Your task to perform on an android device: turn off location history Image 0: 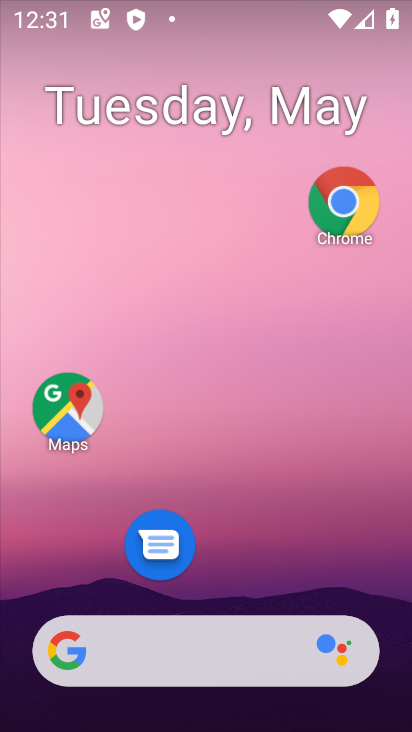
Step 0: drag from (235, 565) to (247, 0)
Your task to perform on an android device: turn off location history Image 1: 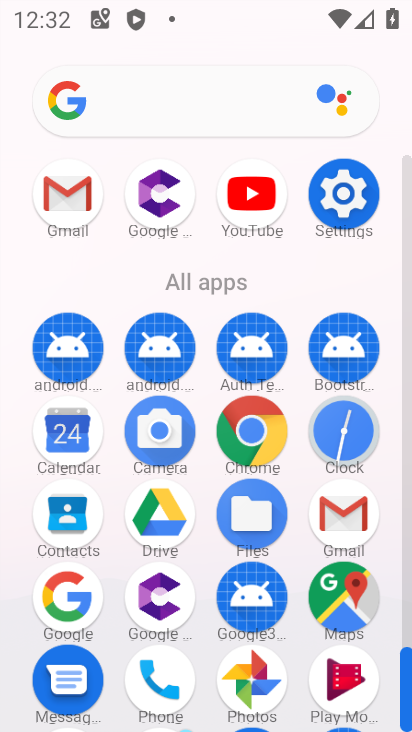
Step 1: click (333, 200)
Your task to perform on an android device: turn off location history Image 2: 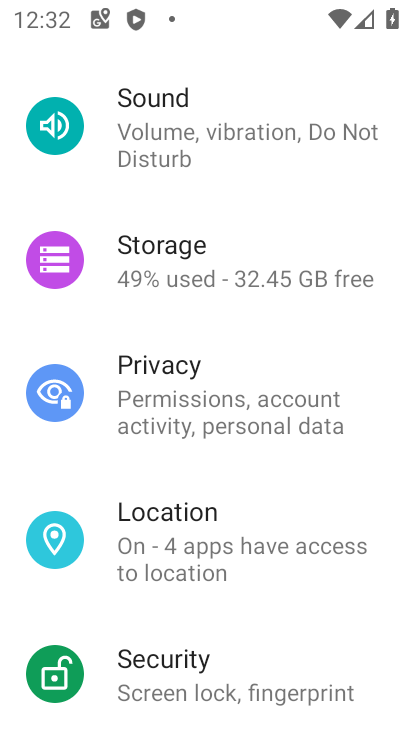
Step 2: click (148, 520)
Your task to perform on an android device: turn off location history Image 3: 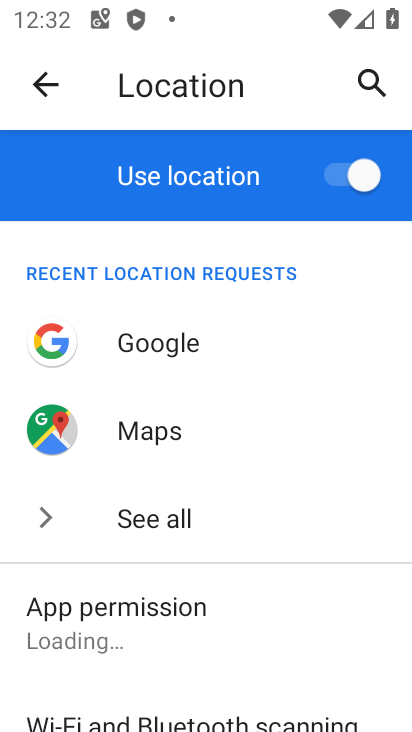
Step 3: drag from (172, 657) to (224, 207)
Your task to perform on an android device: turn off location history Image 4: 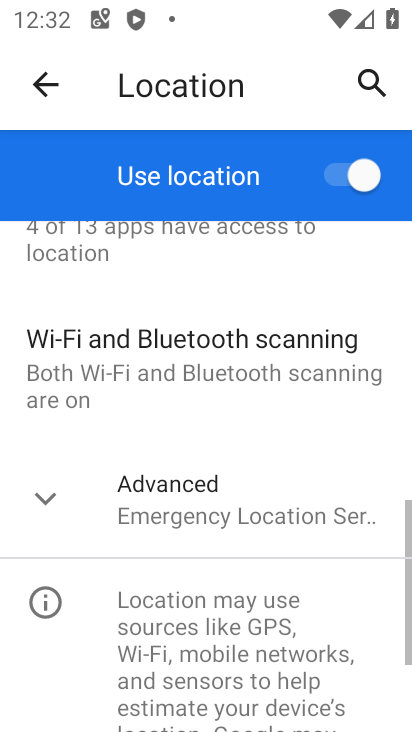
Step 4: click (162, 473)
Your task to perform on an android device: turn off location history Image 5: 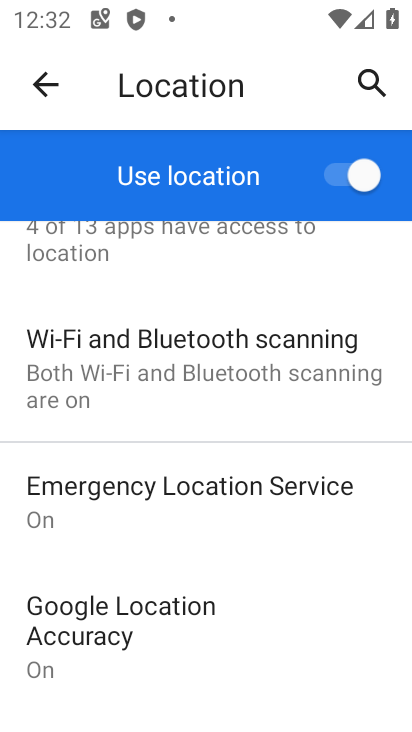
Step 5: drag from (144, 684) to (195, 224)
Your task to perform on an android device: turn off location history Image 6: 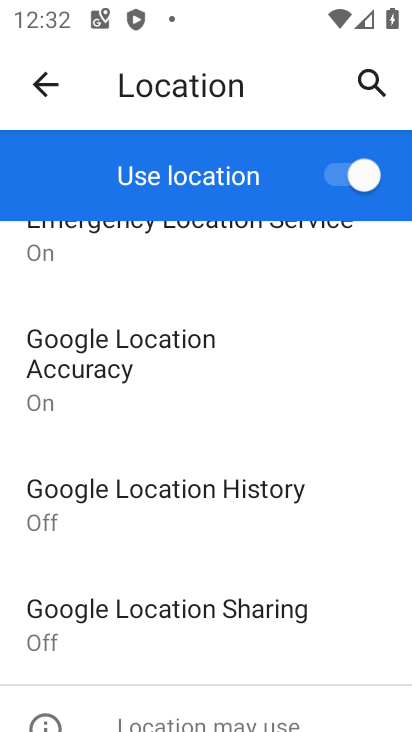
Step 6: click (157, 488)
Your task to perform on an android device: turn off location history Image 7: 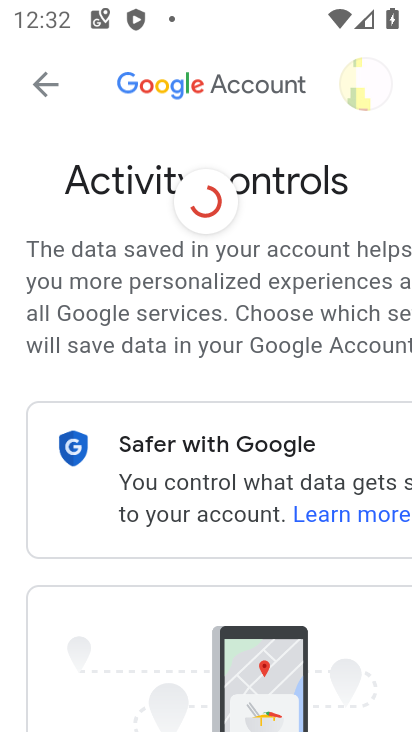
Step 7: drag from (196, 594) to (226, 127)
Your task to perform on an android device: turn off location history Image 8: 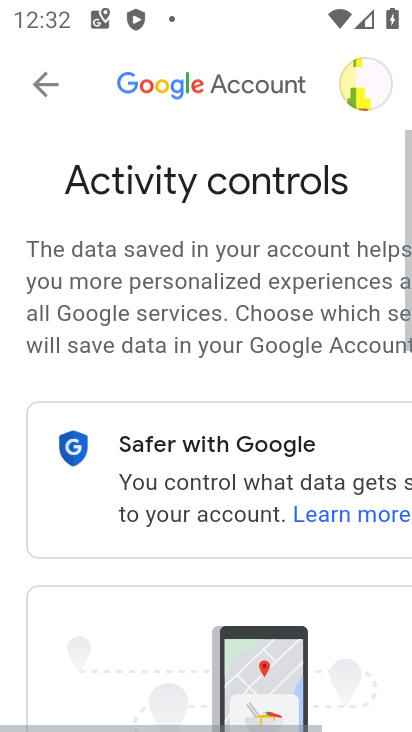
Step 8: drag from (170, 562) to (182, 283)
Your task to perform on an android device: turn off location history Image 9: 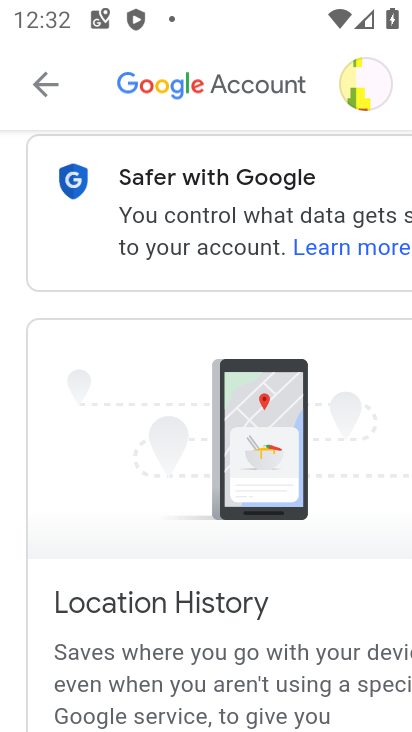
Step 9: drag from (238, 618) to (246, 81)
Your task to perform on an android device: turn off location history Image 10: 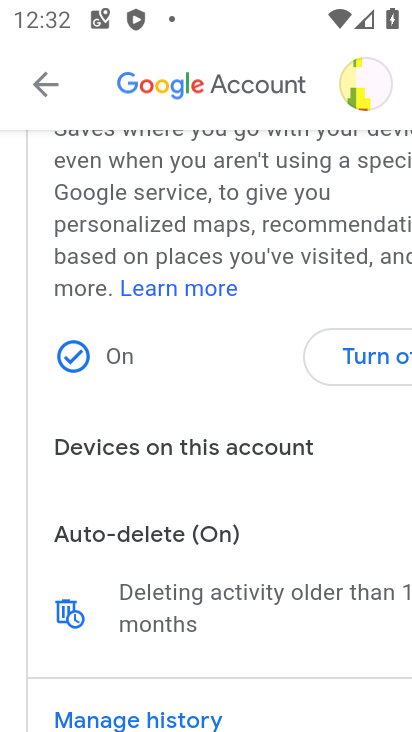
Step 10: click (364, 371)
Your task to perform on an android device: turn off location history Image 11: 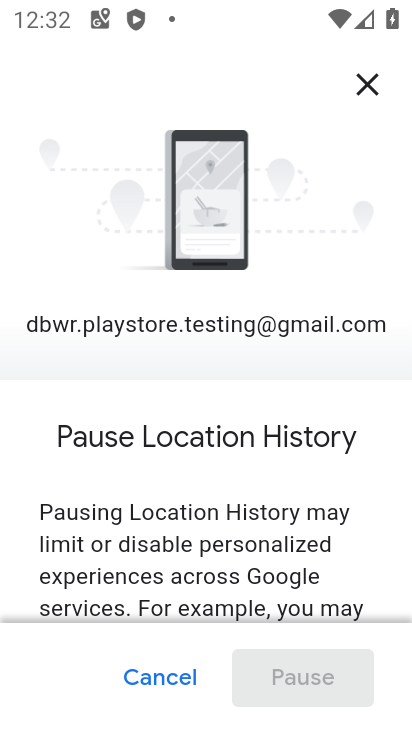
Step 11: drag from (237, 584) to (263, 48)
Your task to perform on an android device: turn off location history Image 12: 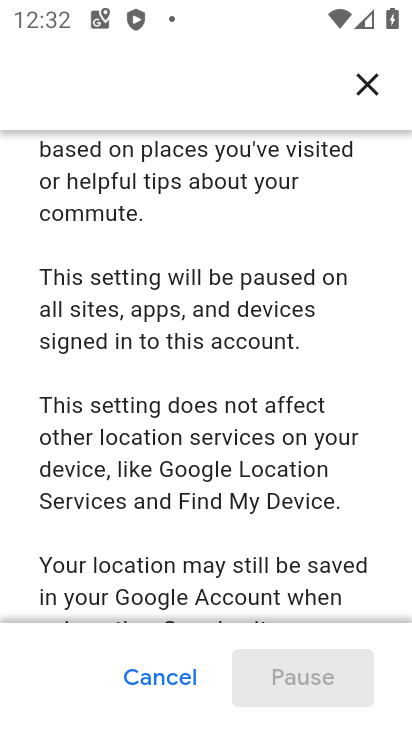
Step 12: drag from (188, 580) to (244, 77)
Your task to perform on an android device: turn off location history Image 13: 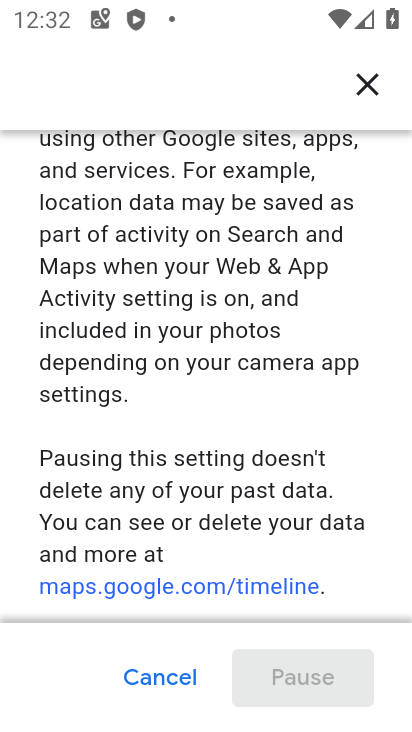
Step 13: drag from (169, 609) to (270, 165)
Your task to perform on an android device: turn off location history Image 14: 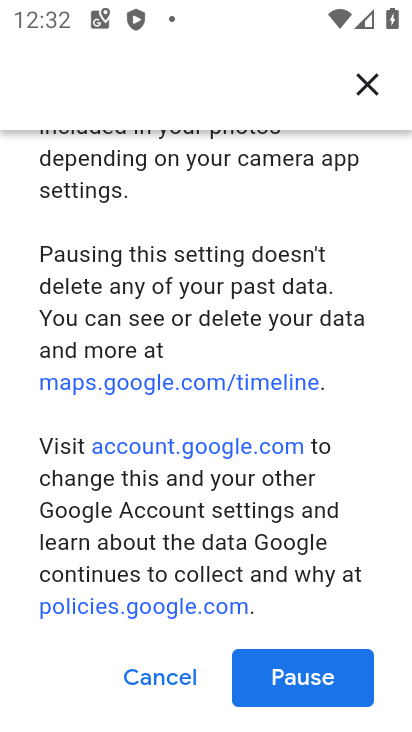
Step 14: click (282, 671)
Your task to perform on an android device: turn off location history Image 15: 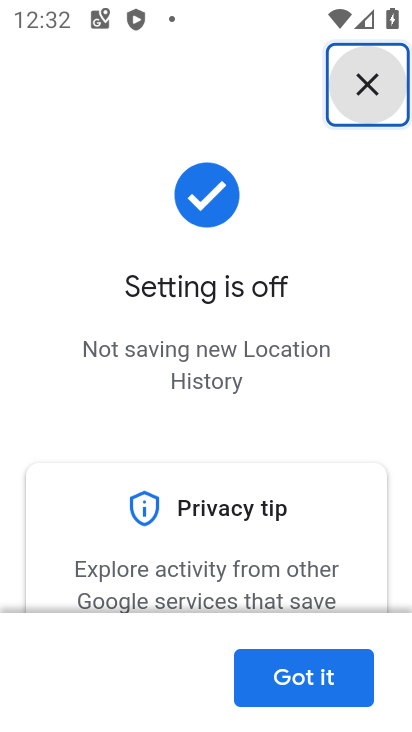
Step 15: click (282, 671)
Your task to perform on an android device: turn off location history Image 16: 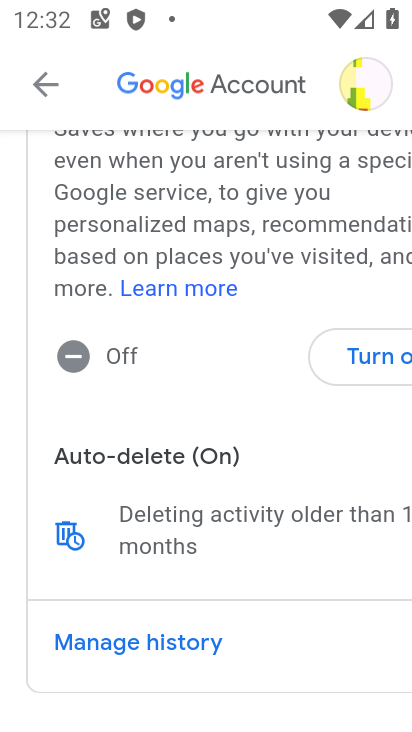
Step 16: task complete